Your task to perform on an android device: Open Google Image 0: 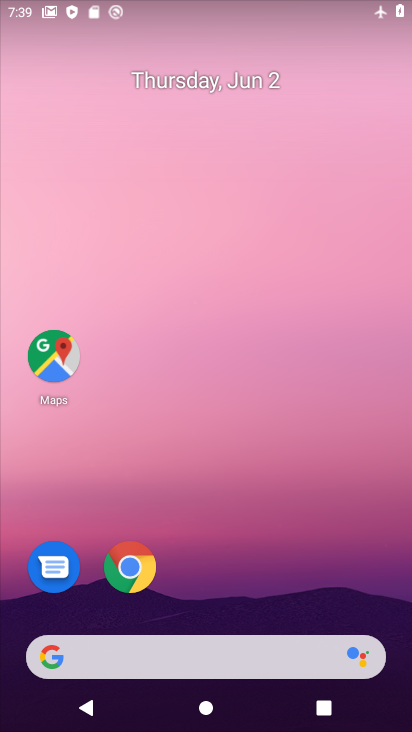
Step 0: drag from (250, 575) to (254, 159)
Your task to perform on an android device: Open Google Image 1: 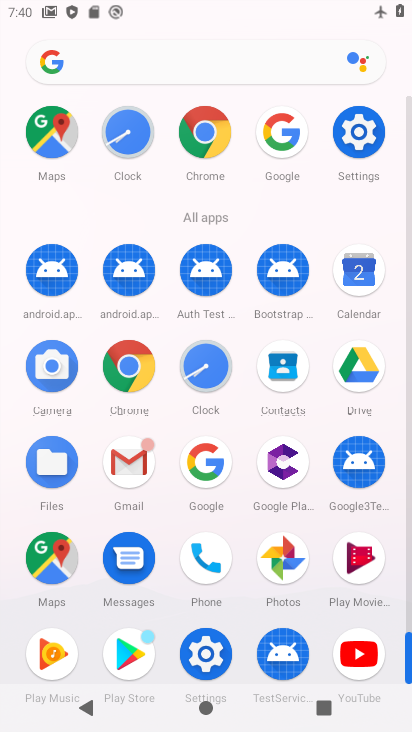
Step 1: click (278, 133)
Your task to perform on an android device: Open Google Image 2: 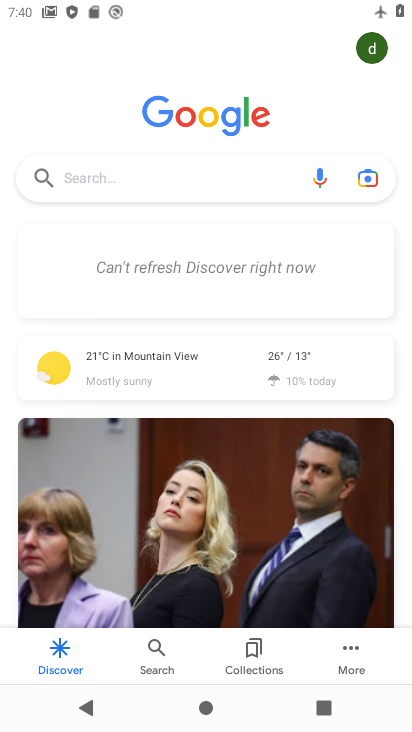
Step 2: task complete